Your task to perform on an android device: Go to privacy settings Image 0: 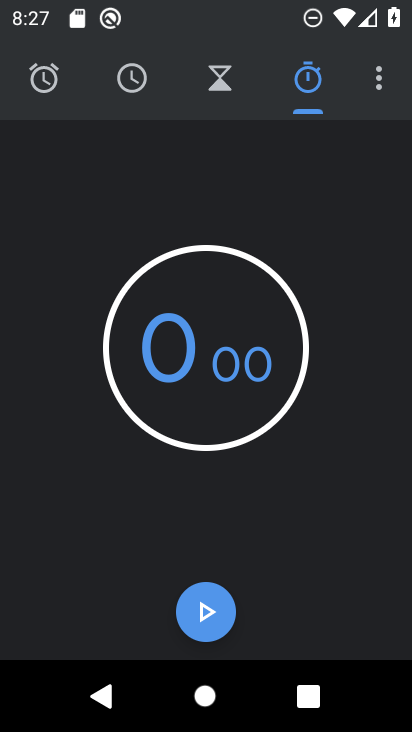
Step 0: press home button
Your task to perform on an android device: Go to privacy settings Image 1: 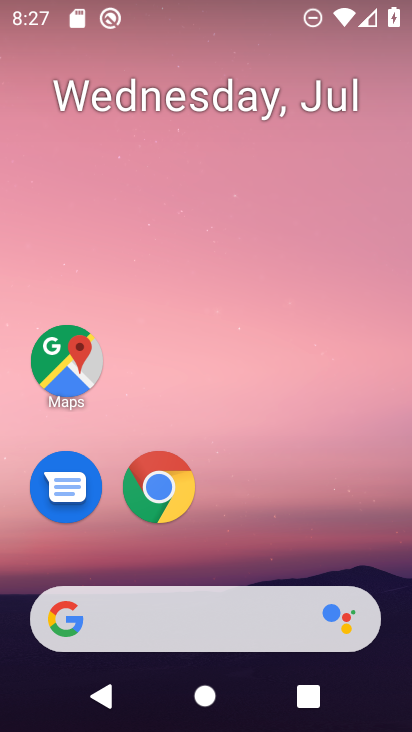
Step 1: drag from (319, 532) to (352, 85)
Your task to perform on an android device: Go to privacy settings Image 2: 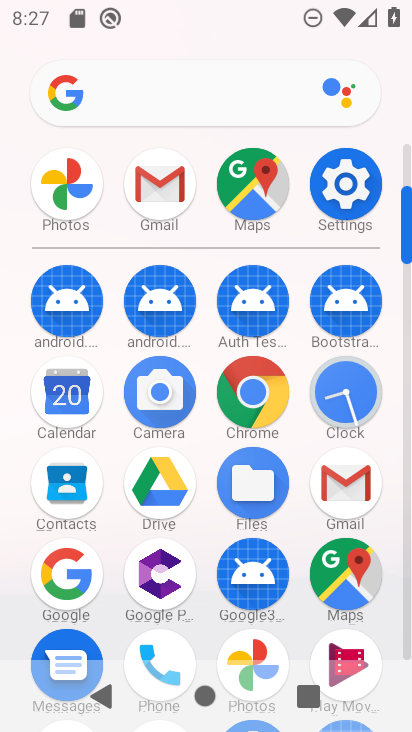
Step 2: click (354, 183)
Your task to perform on an android device: Go to privacy settings Image 3: 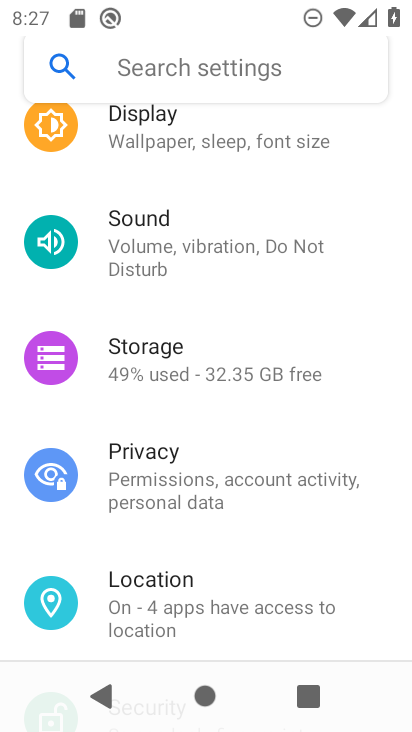
Step 3: drag from (354, 183) to (366, 290)
Your task to perform on an android device: Go to privacy settings Image 4: 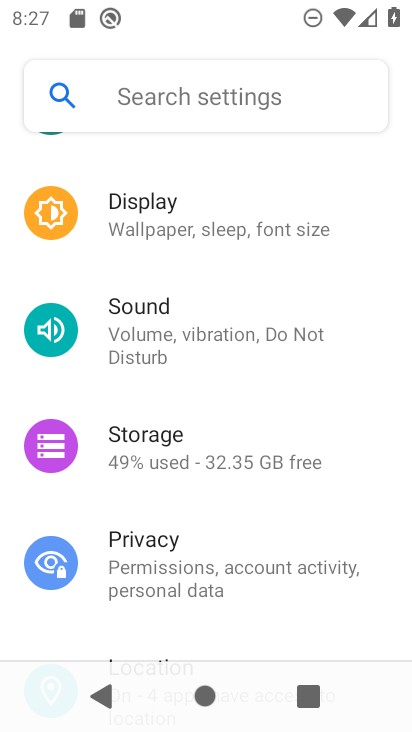
Step 4: drag from (376, 197) to (366, 311)
Your task to perform on an android device: Go to privacy settings Image 5: 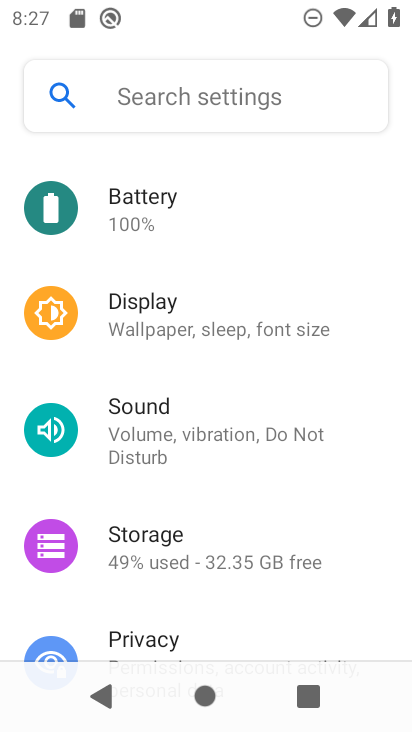
Step 5: drag from (355, 183) to (351, 316)
Your task to perform on an android device: Go to privacy settings Image 6: 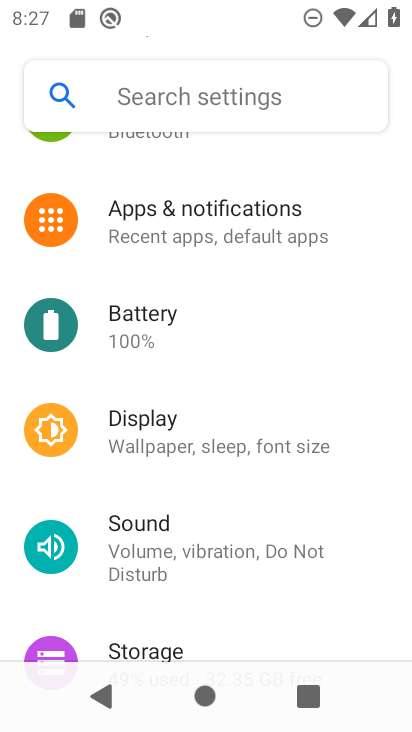
Step 6: drag from (353, 180) to (361, 277)
Your task to perform on an android device: Go to privacy settings Image 7: 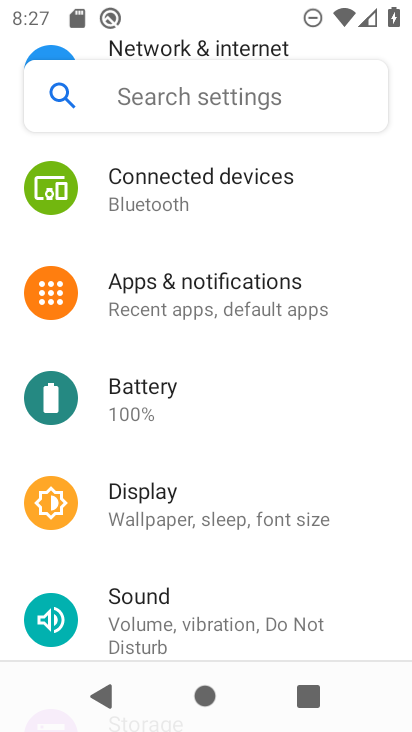
Step 7: drag from (356, 166) to (372, 291)
Your task to perform on an android device: Go to privacy settings Image 8: 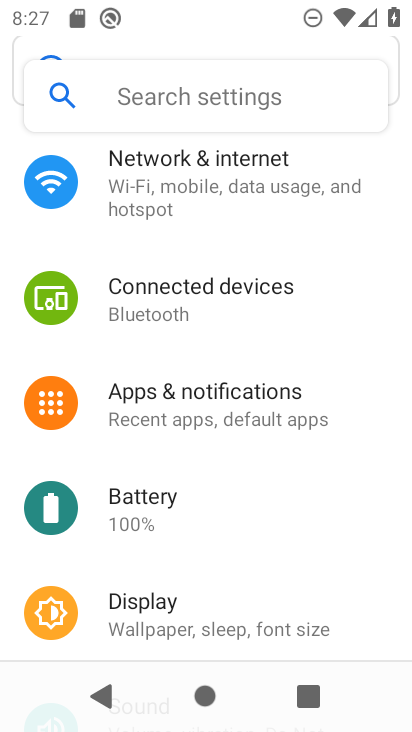
Step 8: drag from (371, 157) to (370, 428)
Your task to perform on an android device: Go to privacy settings Image 9: 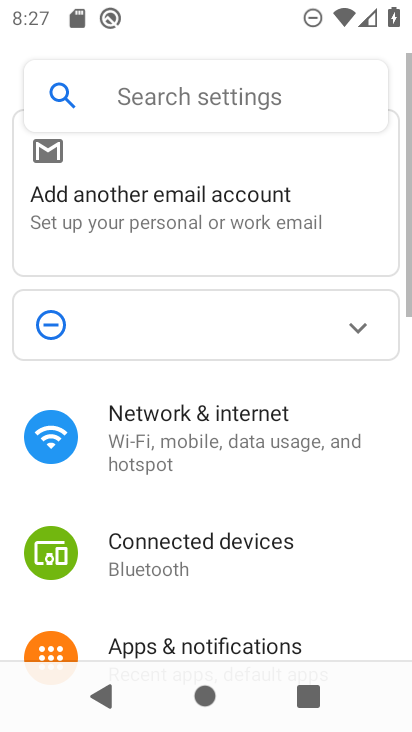
Step 9: drag from (365, 438) to (356, 300)
Your task to perform on an android device: Go to privacy settings Image 10: 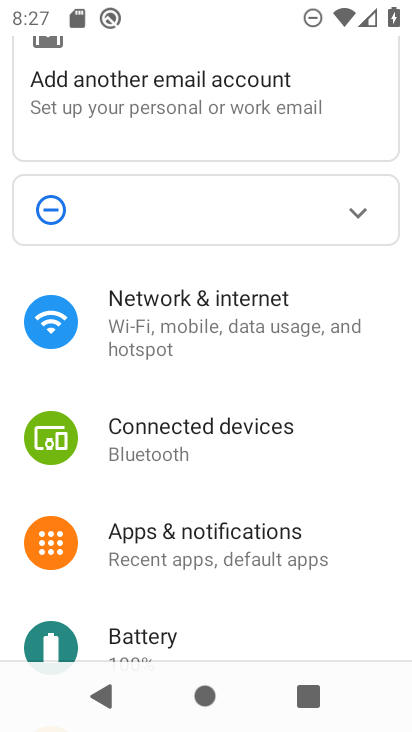
Step 10: drag from (355, 456) to (356, 346)
Your task to perform on an android device: Go to privacy settings Image 11: 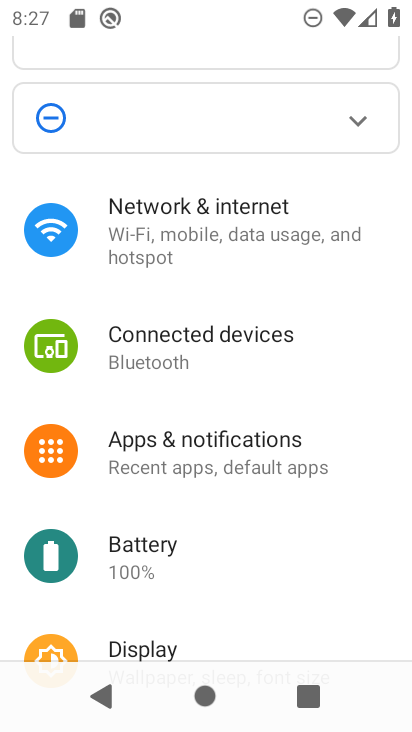
Step 11: drag from (362, 408) to (356, 310)
Your task to perform on an android device: Go to privacy settings Image 12: 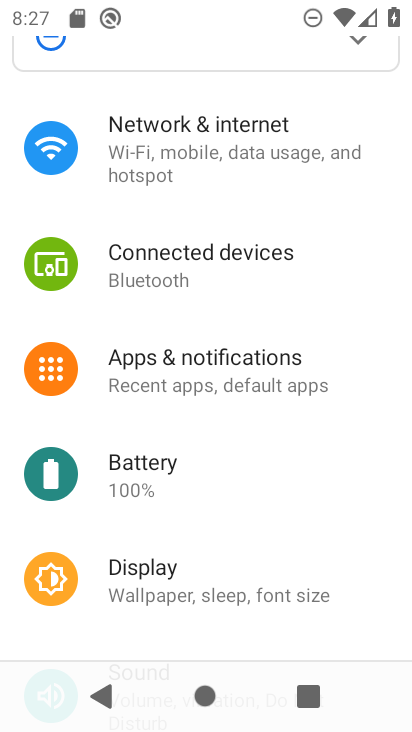
Step 12: drag from (357, 410) to (351, 303)
Your task to perform on an android device: Go to privacy settings Image 13: 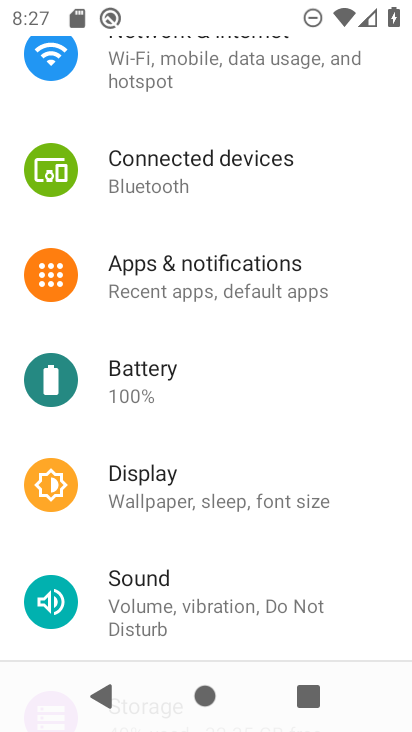
Step 13: drag from (338, 405) to (346, 300)
Your task to perform on an android device: Go to privacy settings Image 14: 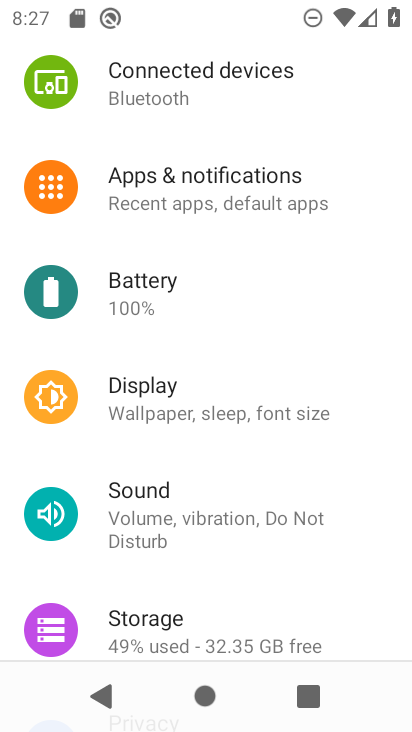
Step 14: drag from (366, 440) to (369, 322)
Your task to perform on an android device: Go to privacy settings Image 15: 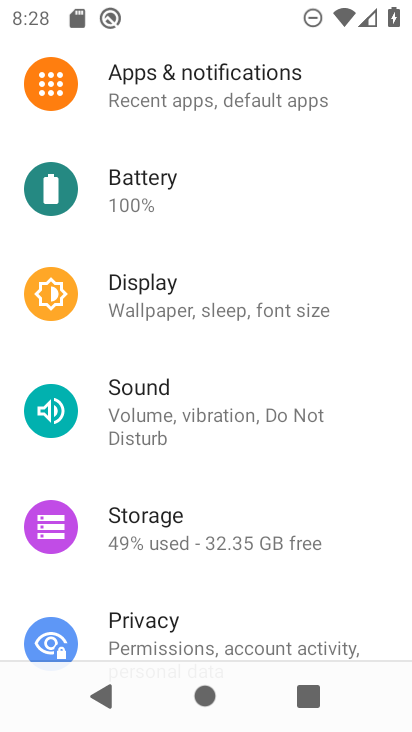
Step 15: drag from (364, 463) to (353, 335)
Your task to perform on an android device: Go to privacy settings Image 16: 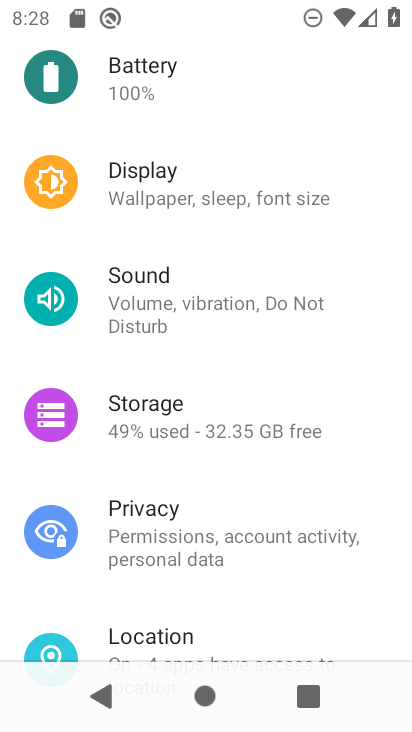
Step 16: drag from (351, 458) to (354, 212)
Your task to perform on an android device: Go to privacy settings Image 17: 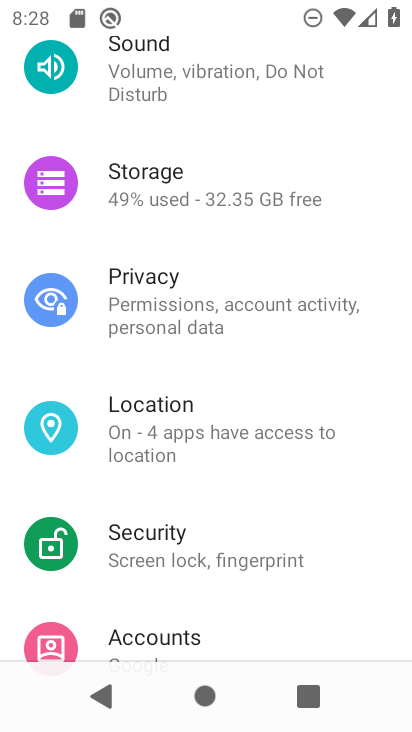
Step 17: click (339, 300)
Your task to perform on an android device: Go to privacy settings Image 18: 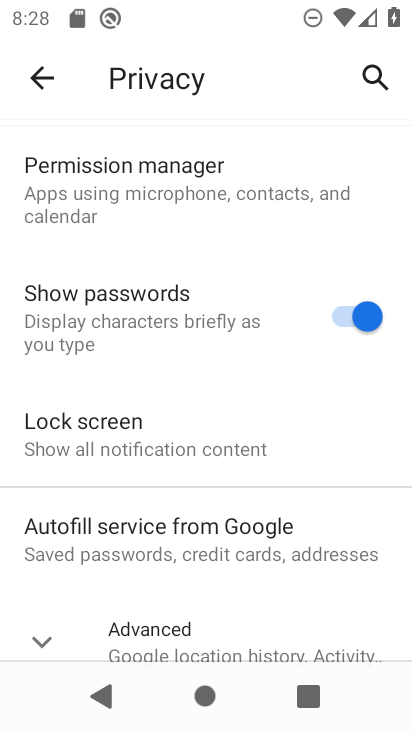
Step 18: task complete